Your task to perform on an android device: delete the emails in spam in the gmail app Image 0: 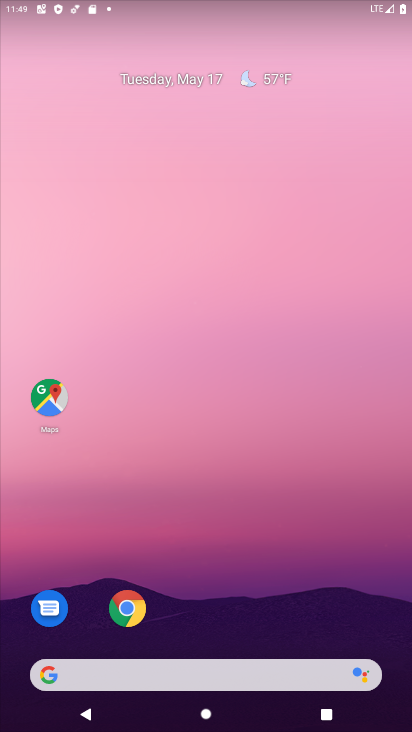
Step 0: press home button
Your task to perform on an android device: delete the emails in spam in the gmail app Image 1: 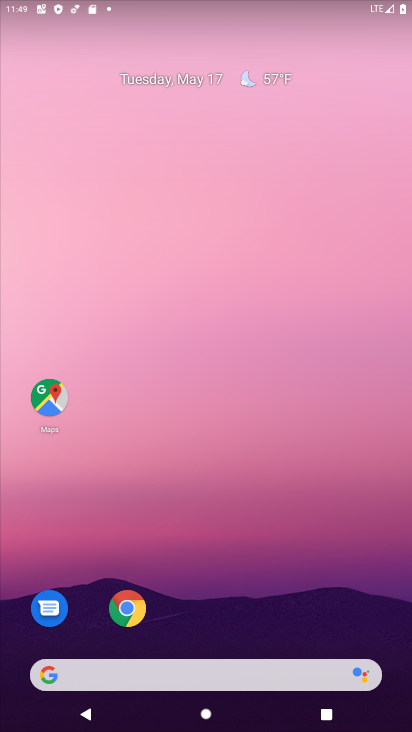
Step 1: drag from (259, 560) to (239, 47)
Your task to perform on an android device: delete the emails in spam in the gmail app Image 2: 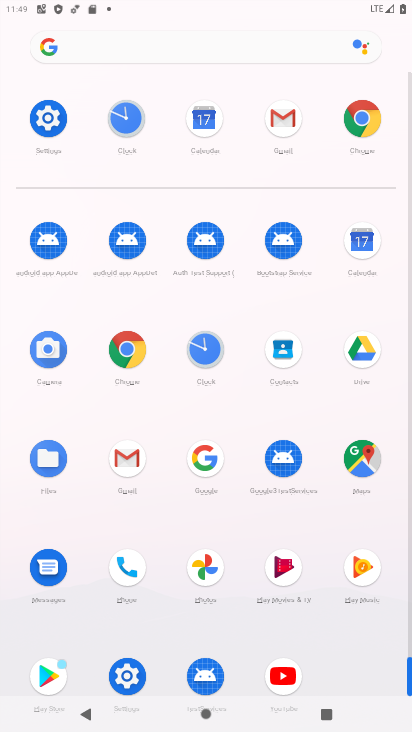
Step 2: click (275, 114)
Your task to perform on an android device: delete the emails in spam in the gmail app Image 3: 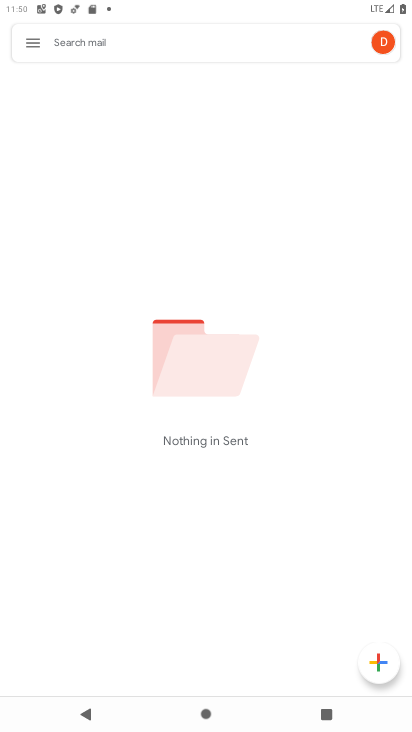
Step 3: click (35, 42)
Your task to perform on an android device: delete the emails in spam in the gmail app Image 4: 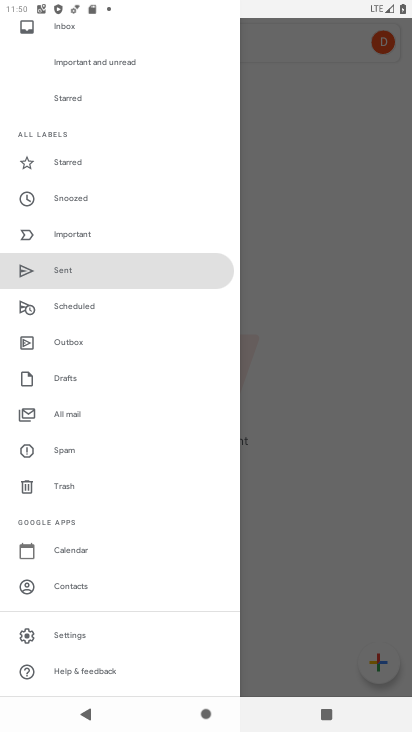
Step 4: click (60, 448)
Your task to perform on an android device: delete the emails in spam in the gmail app Image 5: 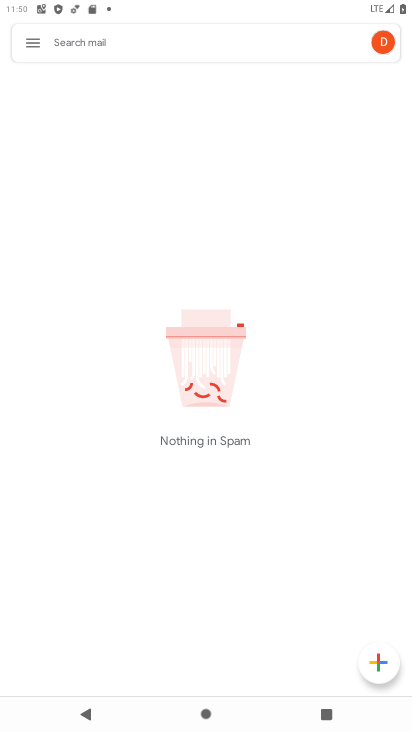
Step 5: task complete